Your task to perform on an android device: Search for "sony triple a" on ebay, select the first entry, add it to the cart, then select checkout. Image 0: 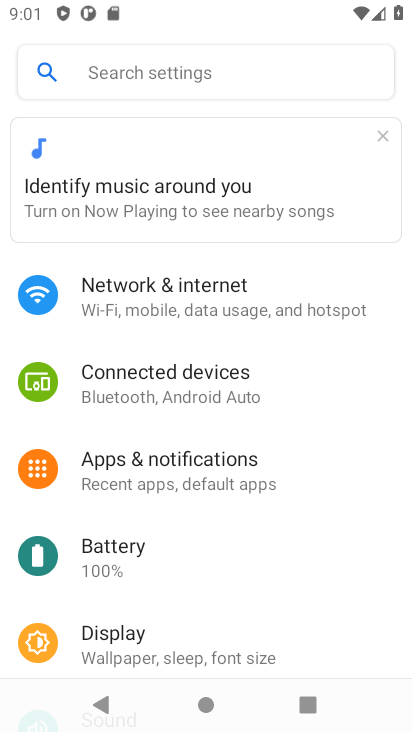
Step 0: press home button
Your task to perform on an android device: Search for "sony triple a" on ebay, select the first entry, add it to the cart, then select checkout. Image 1: 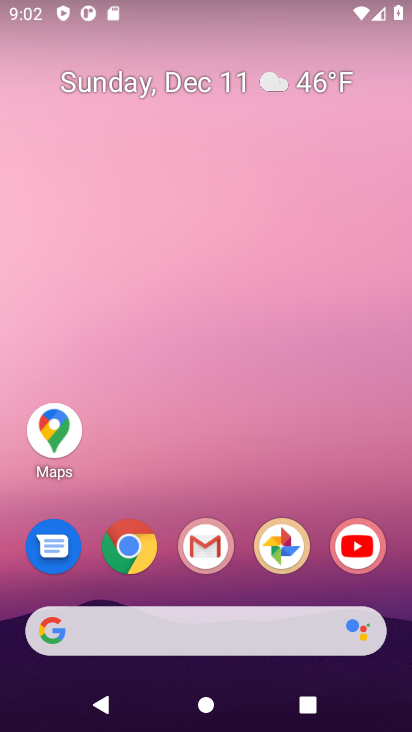
Step 1: click (127, 562)
Your task to perform on an android device: Search for "sony triple a" on ebay, select the first entry, add it to the cart, then select checkout. Image 2: 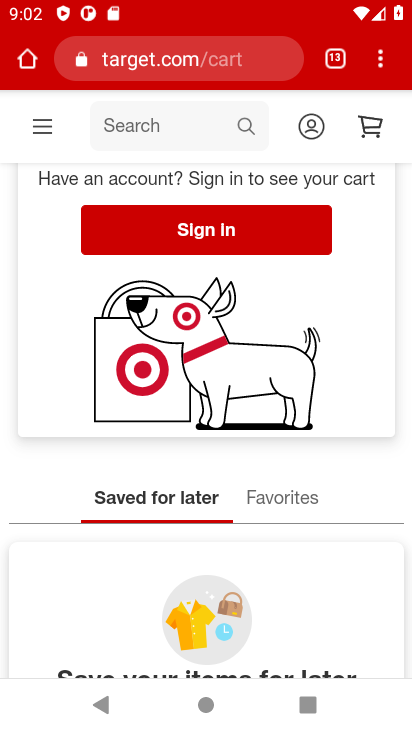
Step 2: click (201, 57)
Your task to perform on an android device: Search for "sony triple a" on ebay, select the first entry, add it to the cart, then select checkout. Image 3: 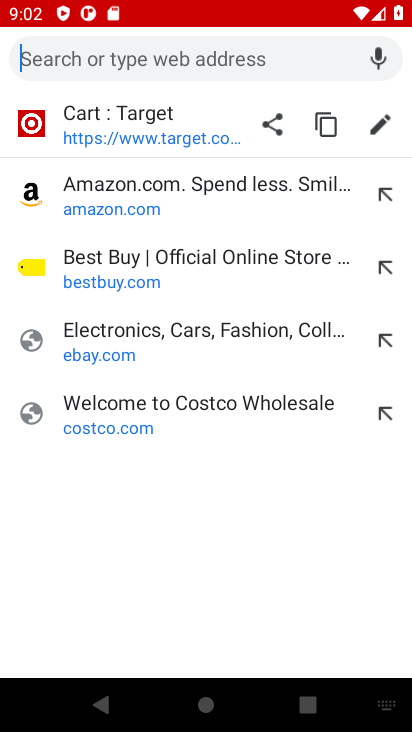
Step 3: click (99, 344)
Your task to perform on an android device: Search for "sony triple a" on ebay, select the first entry, add it to the cart, then select checkout. Image 4: 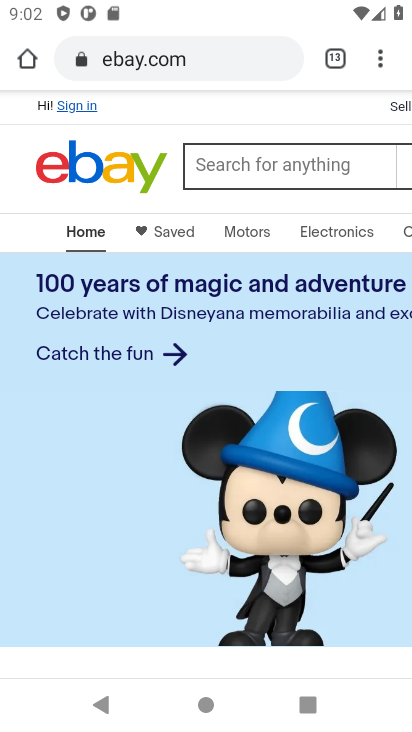
Step 4: click (205, 162)
Your task to perform on an android device: Search for "sony triple a" on ebay, select the first entry, add it to the cart, then select checkout. Image 5: 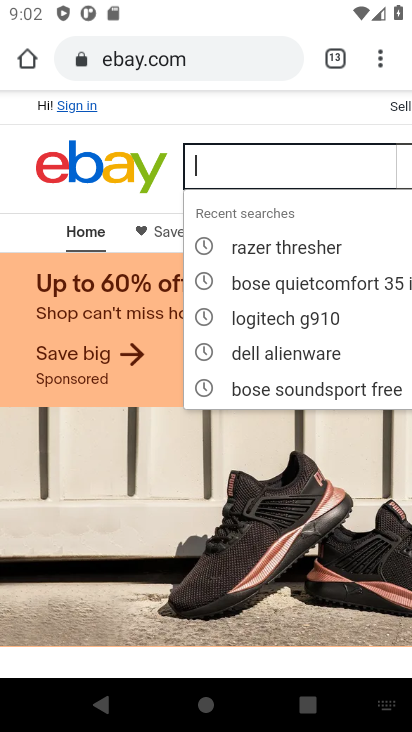
Step 5: type "sony triple a"
Your task to perform on an android device: Search for "sony triple a" on ebay, select the first entry, add it to the cart, then select checkout. Image 6: 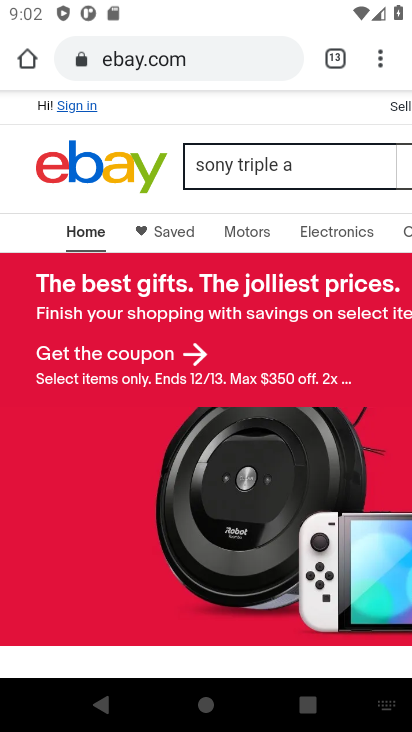
Step 6: drag from (309, 118) to (17, 127)
Your task to perform on an android device: Search for "sony triple a" on ebay, select the first entry, add it to the cart, then select checkout. Image 7: 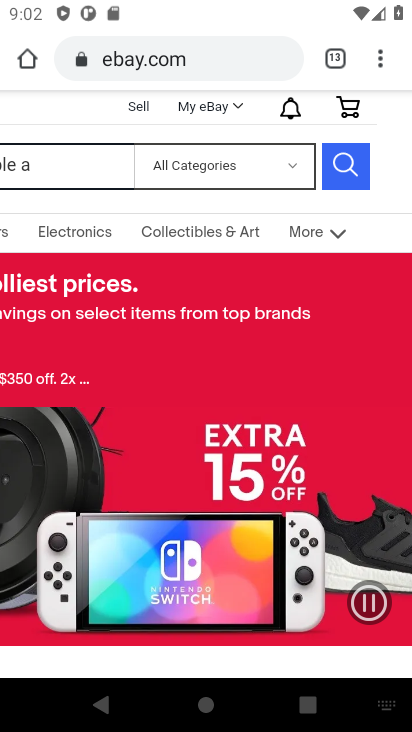
Step 7: click (342, 169)
Your task to perform on an android device: Search for "sony triple a" on ebay, select the first entry, add it to the cart, then select checkout. Image 8: 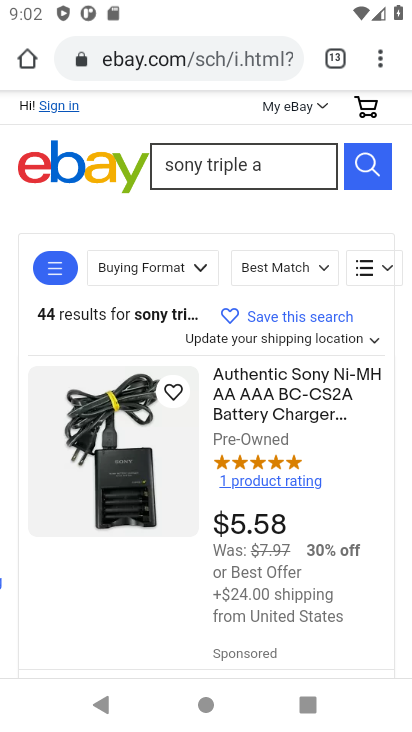
Step 8: click (256, 405)
Your task to perform on an android device: Search for "sony triple a" on ebay, select the first entry, add it to the cart, then select checkout. Image 9: 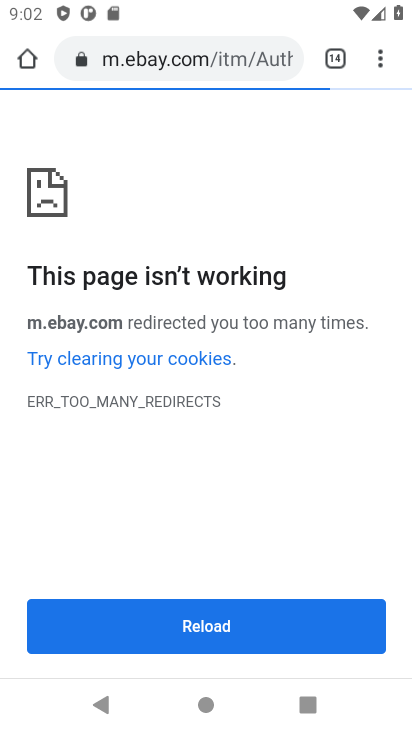
Step 9: task complete